Your task to perform on an android device: Do I have any events this weekend? Image 0: 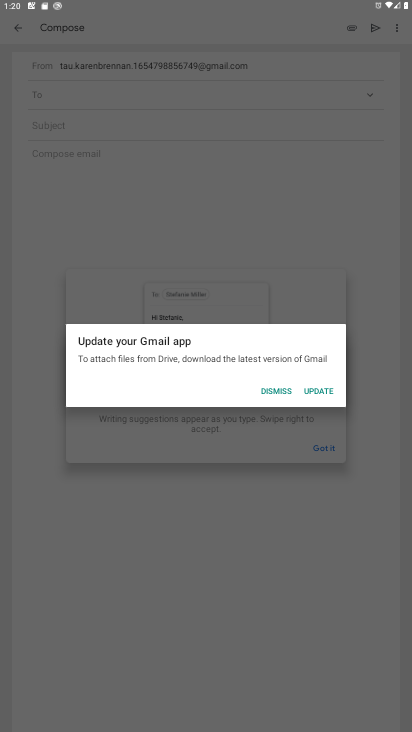
Step 0: press home button
Your task to perform on an android device: Do I have any events this weekend? Image 1: 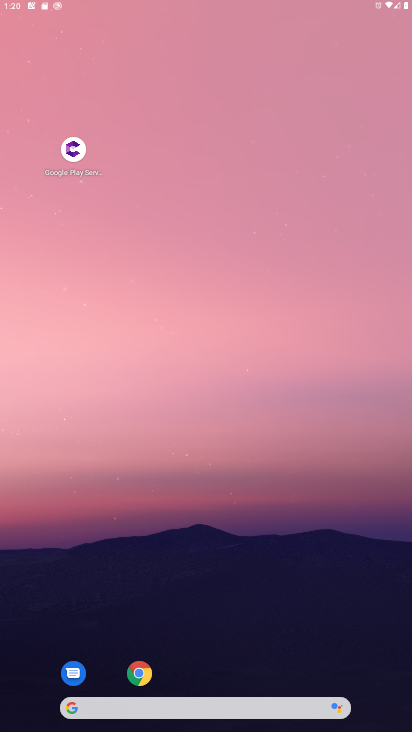
Step 1: drag from (228, 632) to (228, 159)
Your task to perform on an android device: Do I have any events this weekend? Image 2: 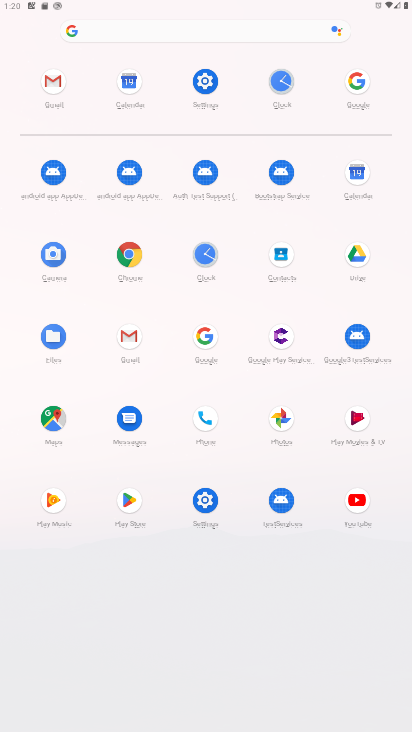
Step 2: click (358, 168)
Your task to perform on an android device: Do I have any events this weekend? Image 3: 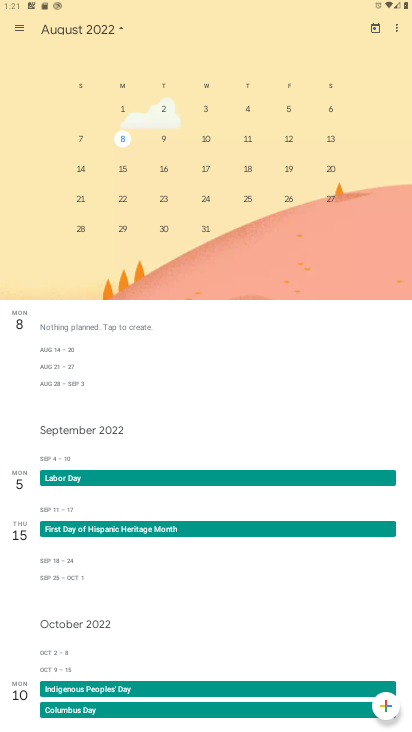
Step 3: drag from (60, 185) to (365, 205)
Your task to perform on an android device: Do I have any events this weekend? Image 4: 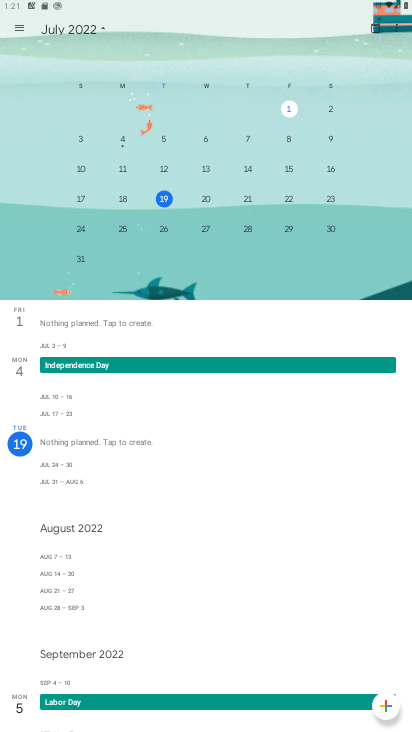
Step 4: click (243, 193)
Your task to perform on an android device: Do I have any events this weekend? Image 5: 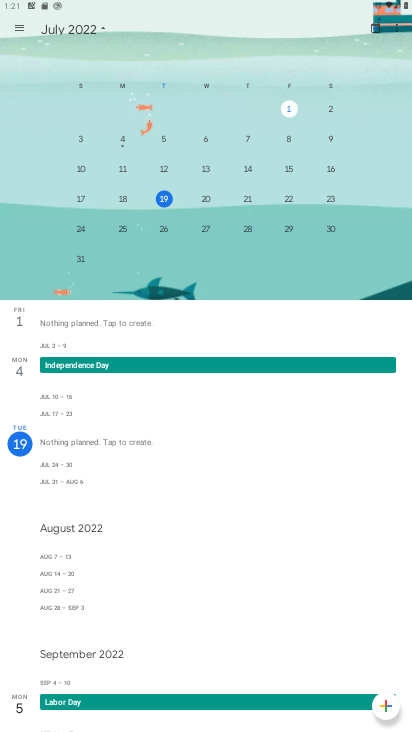
Step 5: click (319, 206)
Your task to perform on an android device: Do I have any events this weekend? Image 6: 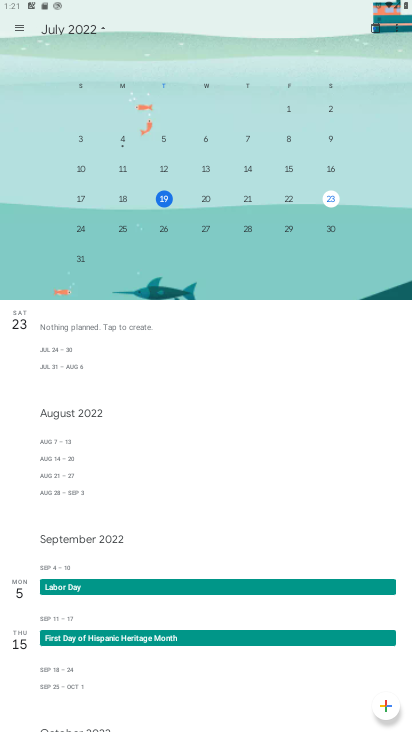
Step 6: task complete